Your task to perform on an android device: set an alarm Image 0: 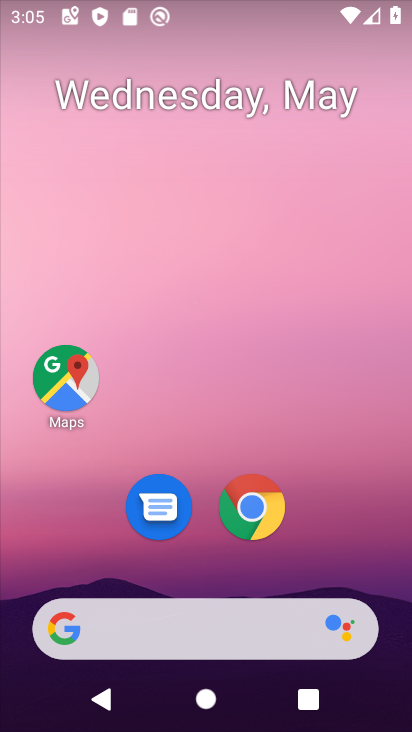
Step 0: drag from (202, 573) to (186, 17)
Your task to perform on an android device: set an alarm Image 1: 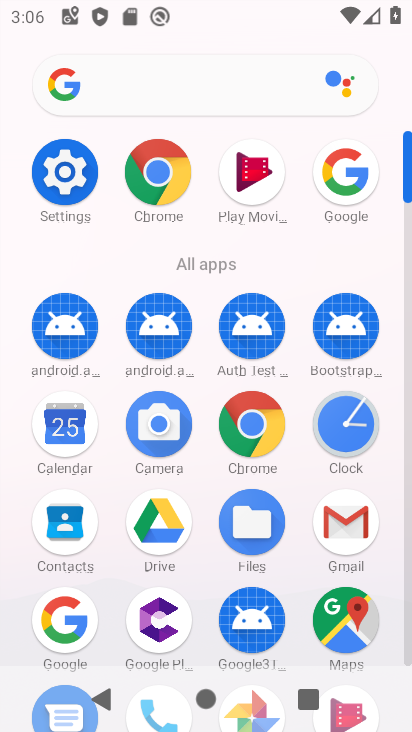
Step 1: click (348, 432)
Your task to perform on an android device: set an alarm Image 2: 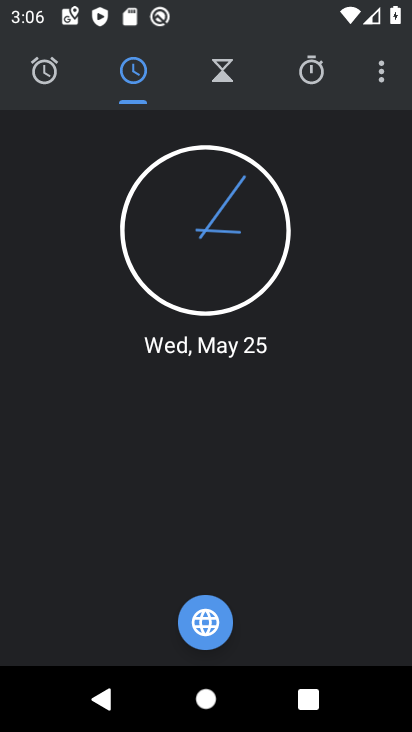
Step 2: click (52, 83)
Your task to perform on an android device: set an alarm Image 3: 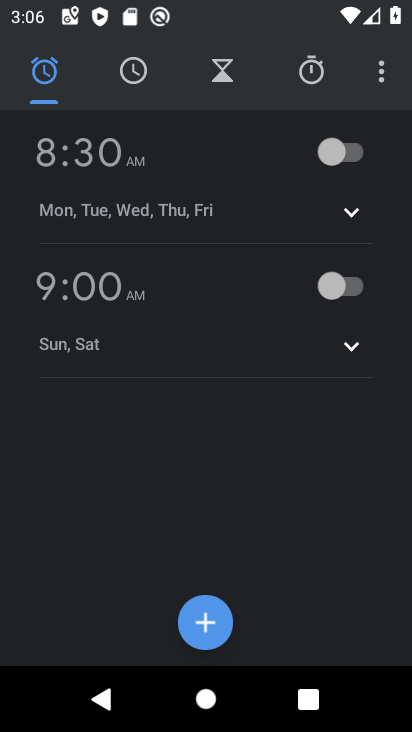
Step 3: click (337, 156)
Your task to perform on an android device: set an alarm Image 4: 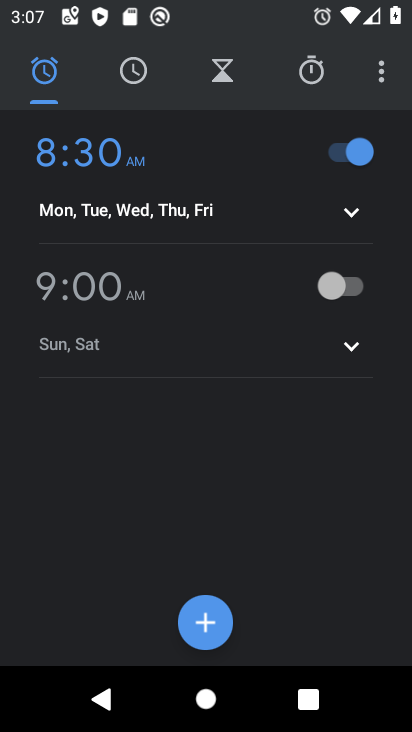
Step 4: task complete